Your task to perform on an android device: Search for sushi restaurants on Maps Image 0: 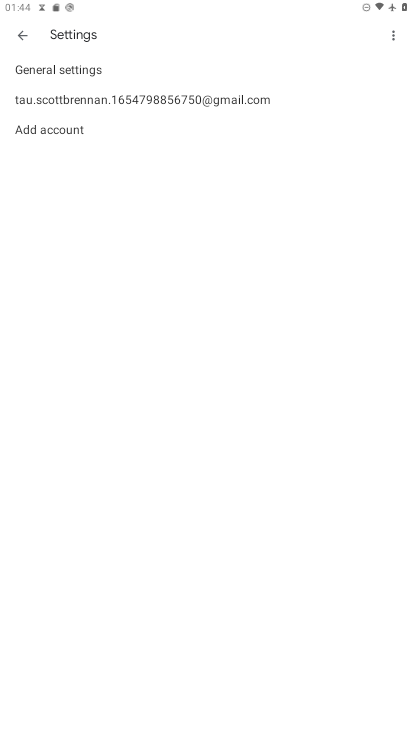
Step 0: press home button
Your task to perform on an android device: Search for sushi restaurants on Maps Image 1: 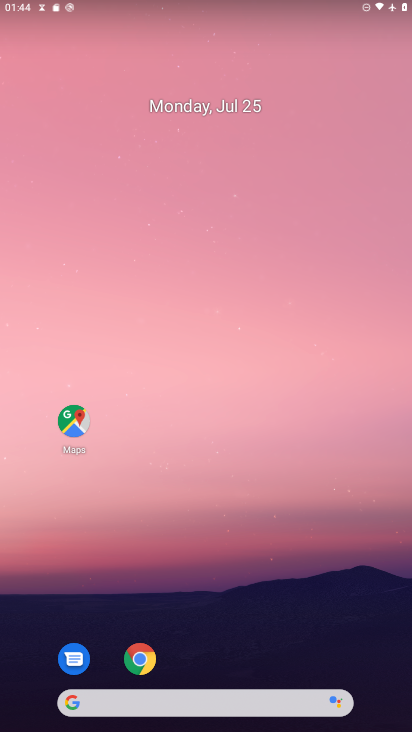
Step 1: click (73, 406)
Your task to perform on an android device: Search for sushi restaurants on Maps Image 2: 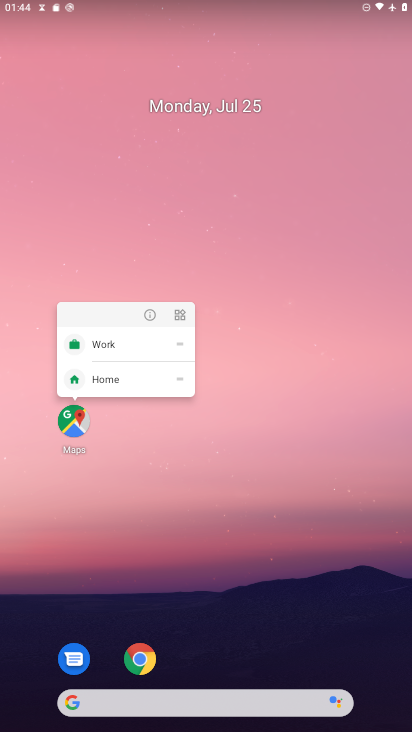
Step 2: click (76, 409)
Your task to perform on an android device: Search for sushi restaurants on Maps Image 3: 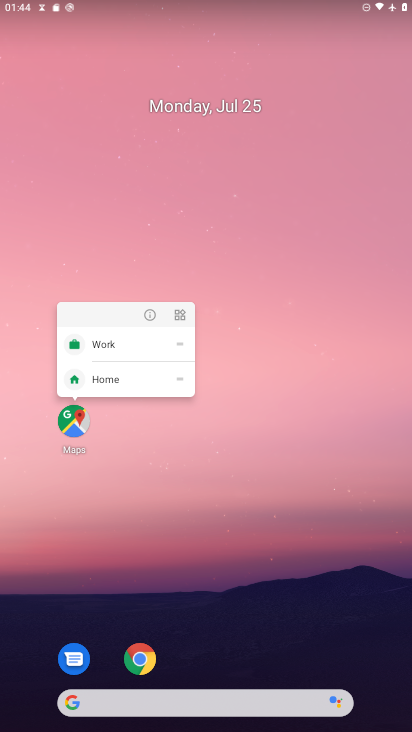
Step 3: click (80, 412)
Your task to perform on an android device: Search for sushi restaurants on Maps Image 4: 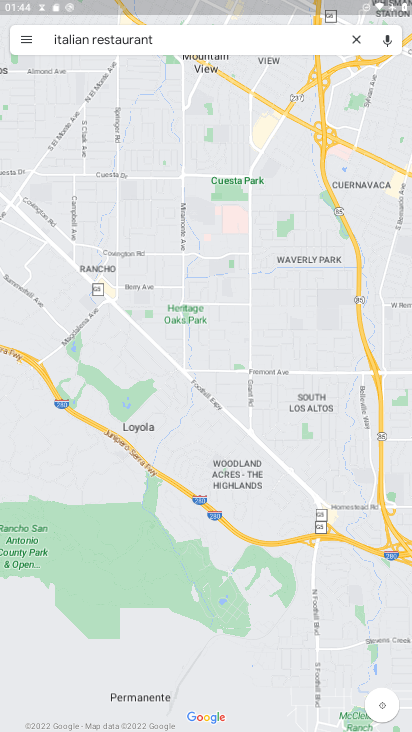
Step 4: click (350, 42)
Your task to perform on an android device: Search for sushi restaurants on Maps Image 5: 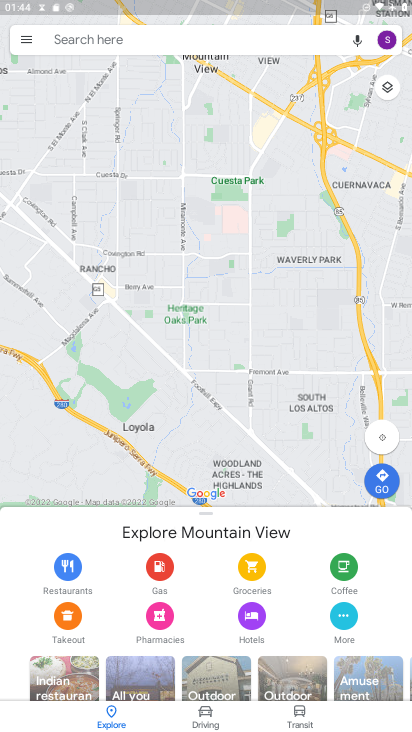
Step 5: click (199, 33)
Your task to perform on an android device: Search for sushi restaurants on Maps Image 6: 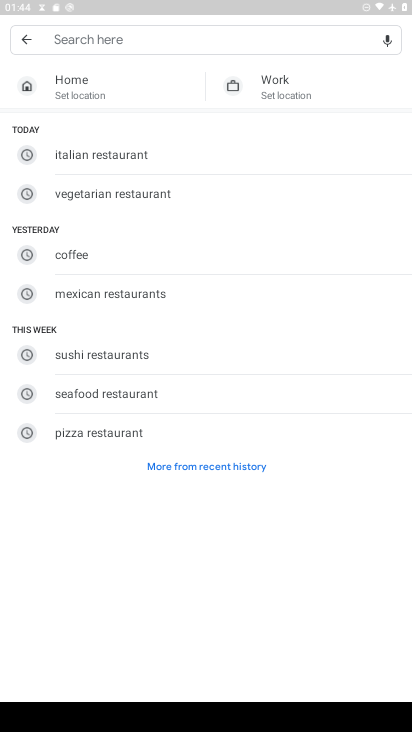
Step 6: click (125, 355)
Your task to perform on an android device: Search for sushi restaurants on Maps Image 7: 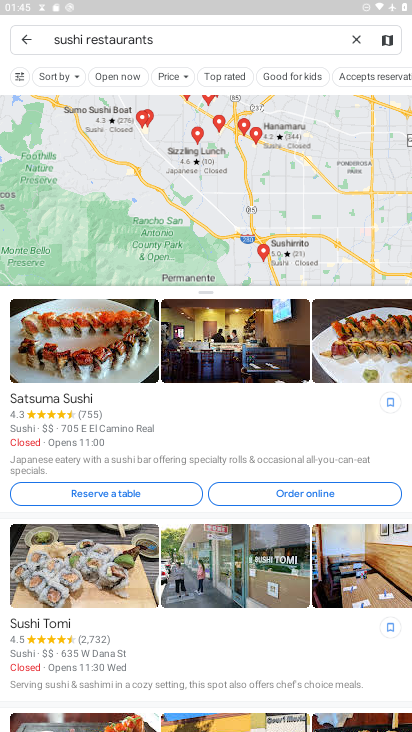
Step 7: task complete